Your task to perform on an android device: Clear all items from cart on bestbuy. Image 0: 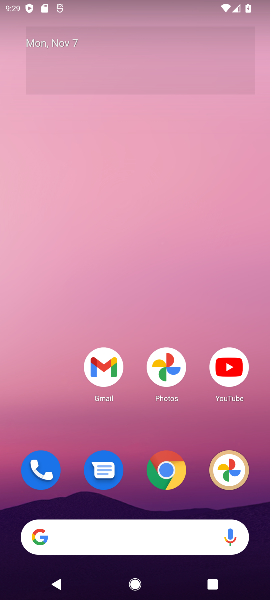
Step 0: click (178, 478)
Your task to perform on an android device: Clear all items from cart on bestbuy. Image 1: 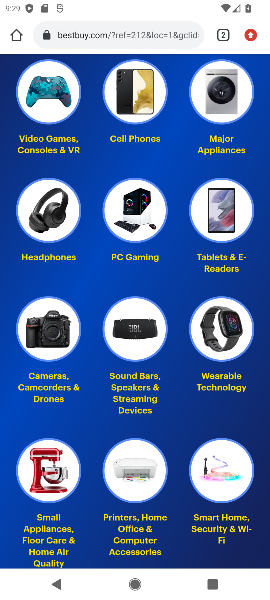
Step 1: press back button
Your task to perform on an android device: Clear all items from cart on bestbuy. Image 2: 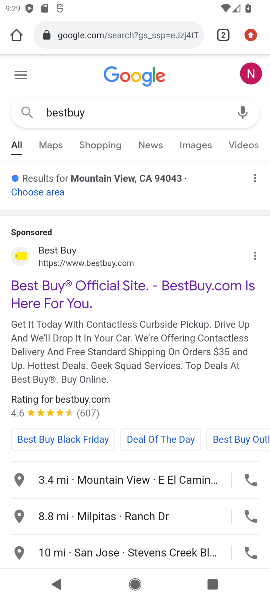
Step 2: click (118, 302)
Your task to perform on an android device: Clear all items from cart on bestbuy. Image 3: 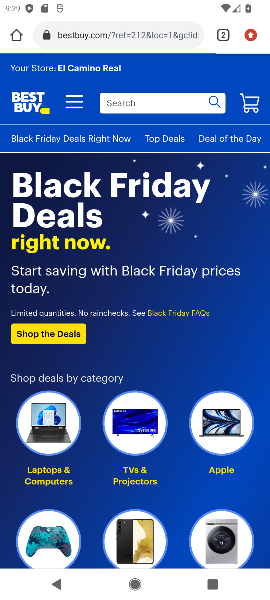
Step 3: click (250, 105)
Your task to perform on an android device: Clear all items from cart on bestbuy. Image 4: 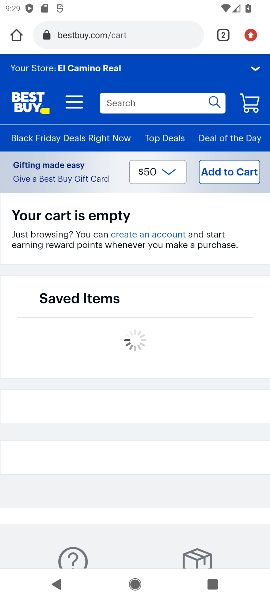
Step 4: task complete